Your task to perform on an android device: choose inbox layout in the gmail app Image 0: 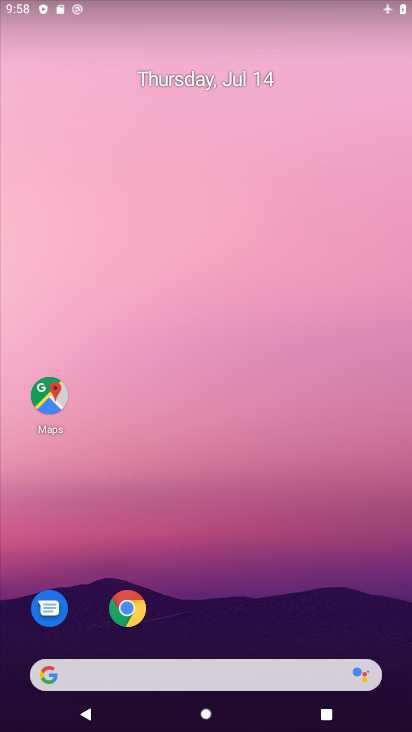
Step 0: drag from (176, 635) to (194, 11)
Your task to perform on an android device: choose inbox layout in the gmail app Image 1: 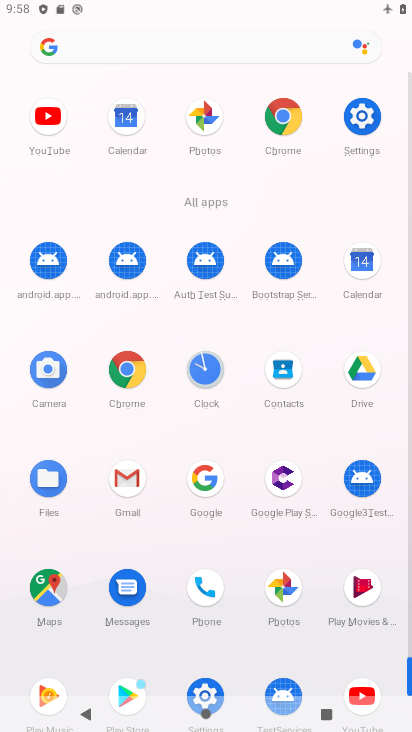
Step 1: click (135, 491)
Your task to perform on an android device: choose inbox layout in the gmail app Image 2: 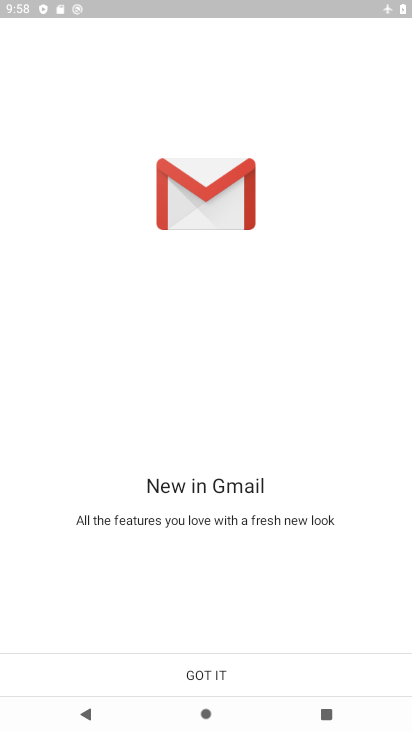
Step 2: click (196, 676)
Your task to perform on an android device: choose inbox layout in the gmail app Image 3: 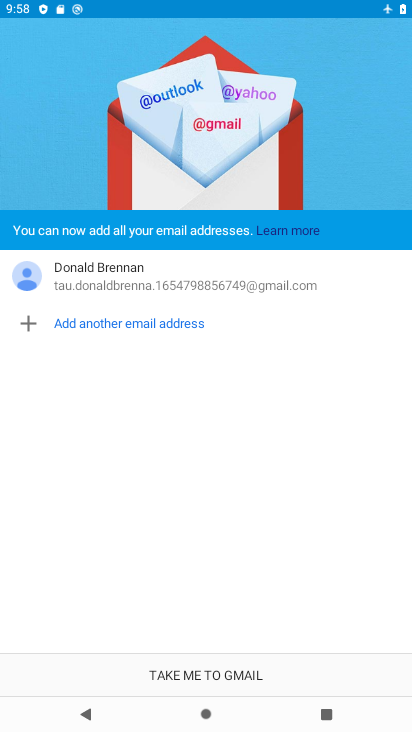
Step 3: click (209, 682)
Your task to perform on an android device: choose inbox layout in the gmail app Image 4: 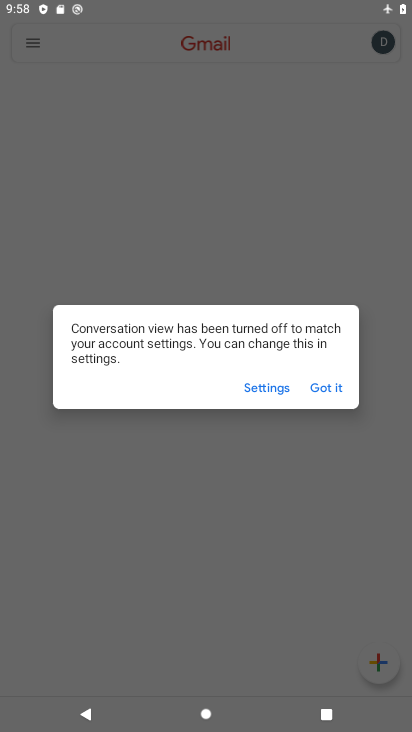
Step 4: click (268, 392)
Your task to perform on an android device: choose inbox layout in the gmail app Image 5: 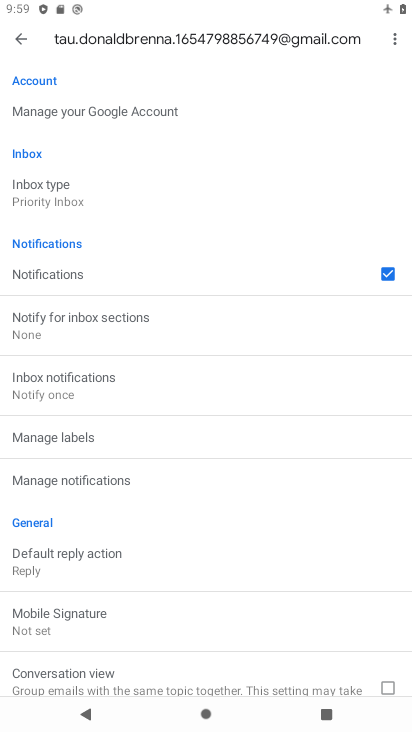
Step 5: click (84, 205)
Your task to perform on an android device: choose inbox layout in the gmail app Image 6: 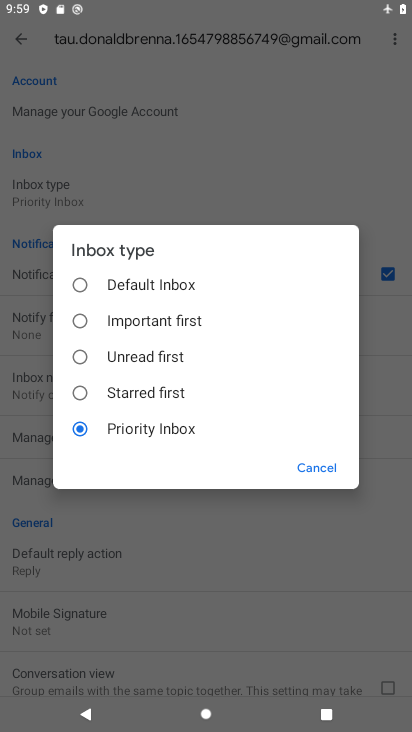
Step 6: click (134, 284)
Your task to perform on an android device: choose inbox layout in the gmail app Image 7: 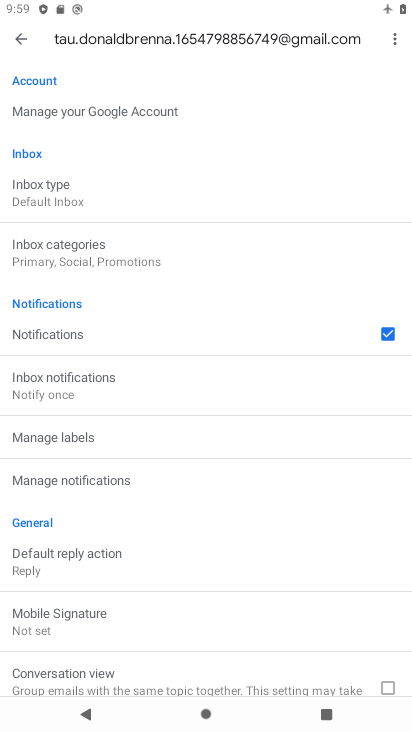
Step 7: click (118, 285)
Your task to perform on an android device: choose inbox layout in the gmail app Image 8: 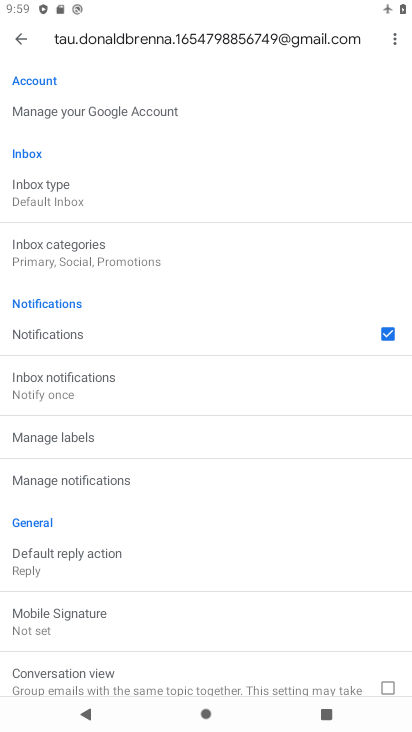
Step 8: task complete